Your task to perform on an android device: visit the assistant section in the google photos Image 0: 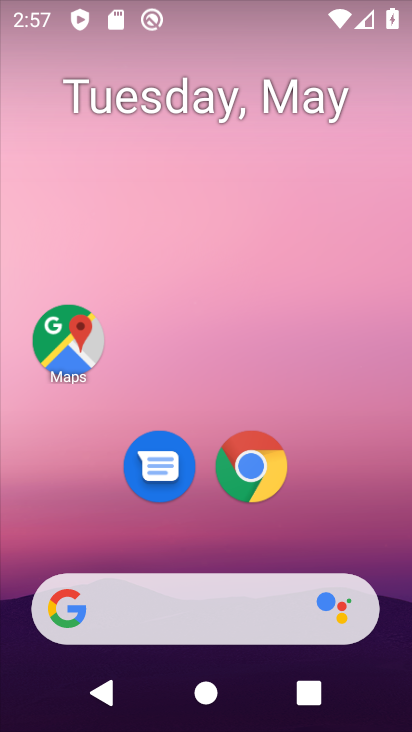
Step 0: drag from (331, 427) to (324, 218)
Your task to perform on an android device: visit the assistant section in the google photos Image 1: 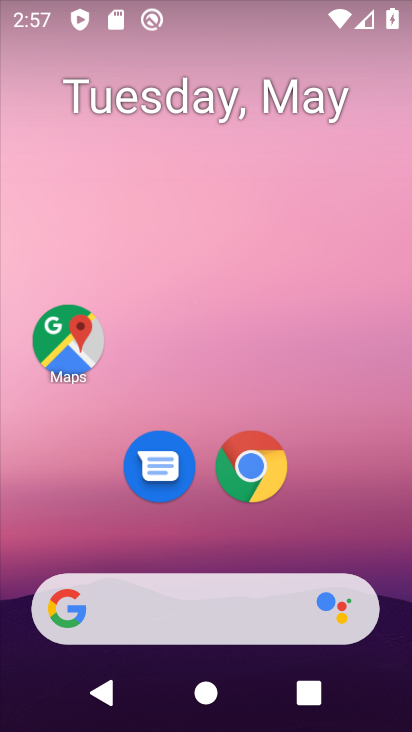
Step 1: drag from (280, 540) to (250, 296)
Your task to perform on an android device: visit the assistant section in the google photos Image 2: 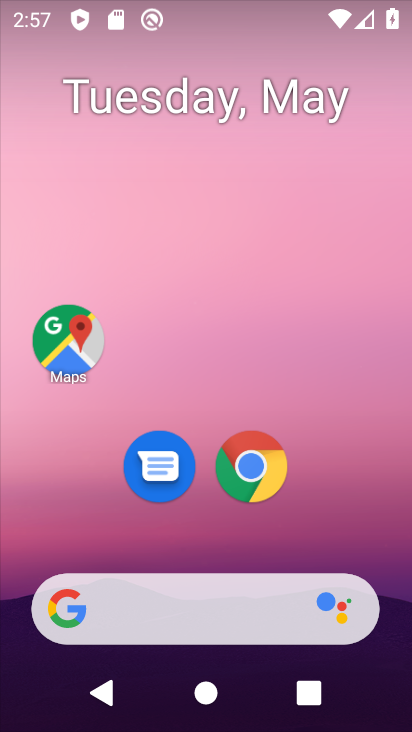
Step 2: drag from (246, 548) to (230, 212)
Your task to perform on an android device: visit the assistant section in the google photos Image 3: 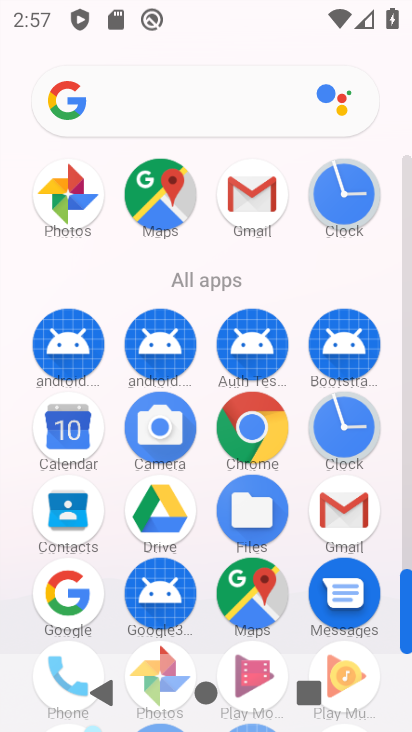
Step 3: click (159, 647)
Your task to perform on an android device: visit the assistant section in the google photos Image 4: 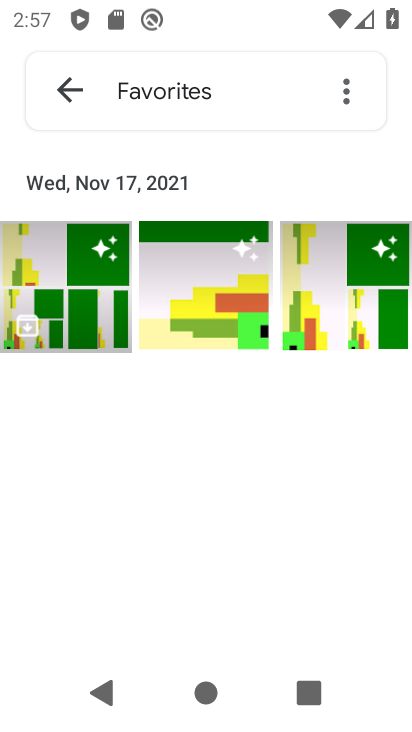
Step 4: click (69, 80)
Your task to perform on an android device: visit the assistant section in the google photos Image 5: 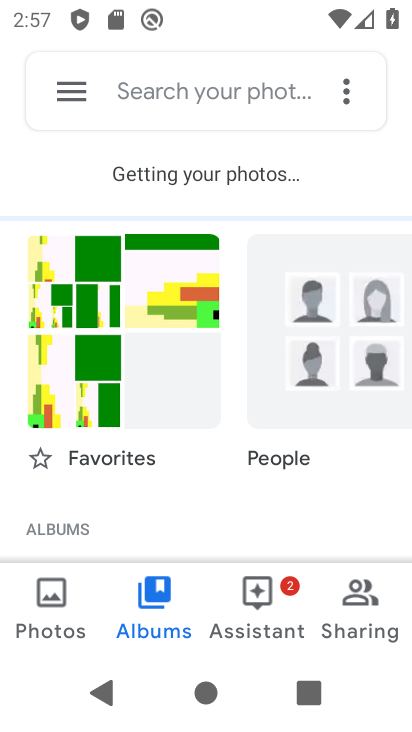
Step 5: click (253, 602)
Your task to perform on an android device: visit the assistant section in the google photos Image 6: 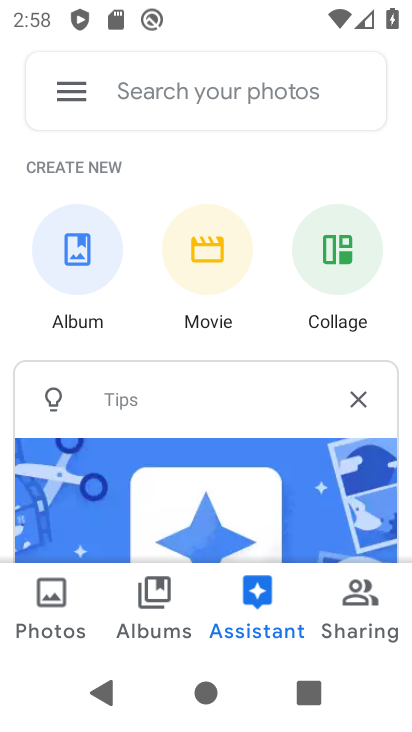
Step 6: task complete